Your task to perform on an android device: When is my next appointment? Image 0: 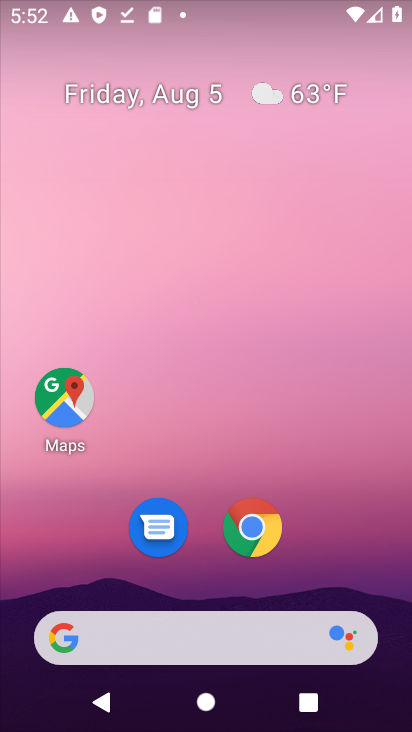
Step 0: drag from (188, 551) to (65, 623)
Your task to perform on an android device: When is my next appointment? Image 1: 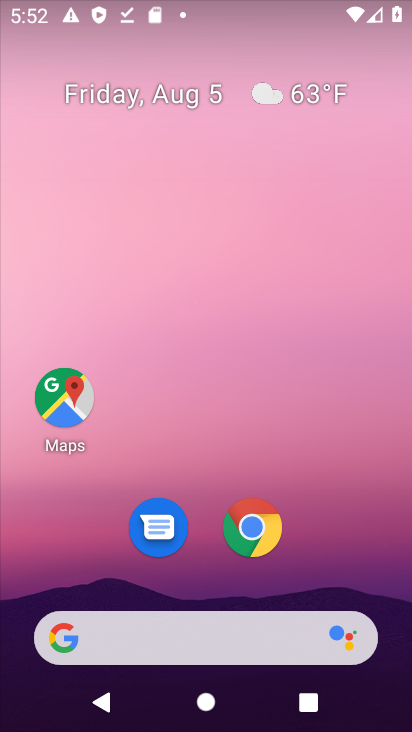
Step 1: drag from (185, 510) to (158, 158)
Your task to perform on an android device: When is my next appointment? Image 2: 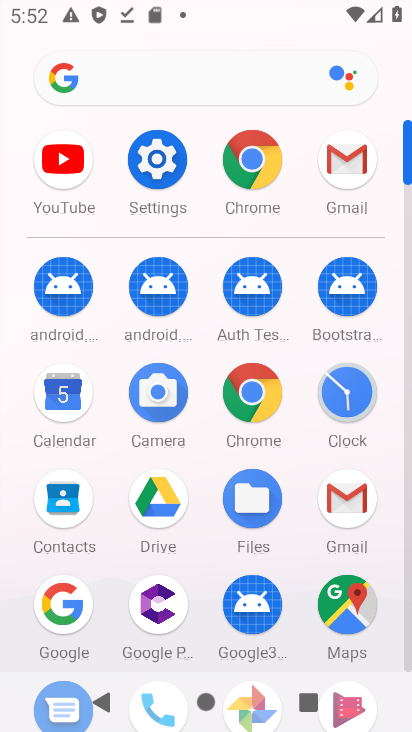
Step 2: click (158, 142)
Your task to perform on an android device: When is my next appointment? Image 3: 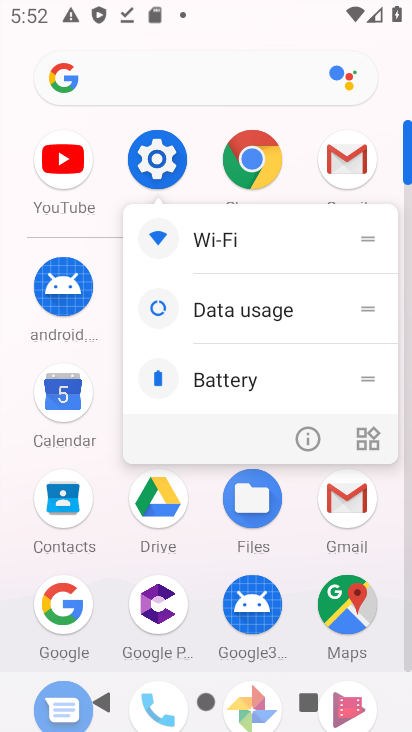
Step 3: click (306, 437)
Your task to perform on an android device: When is my next appointment? Image 4: 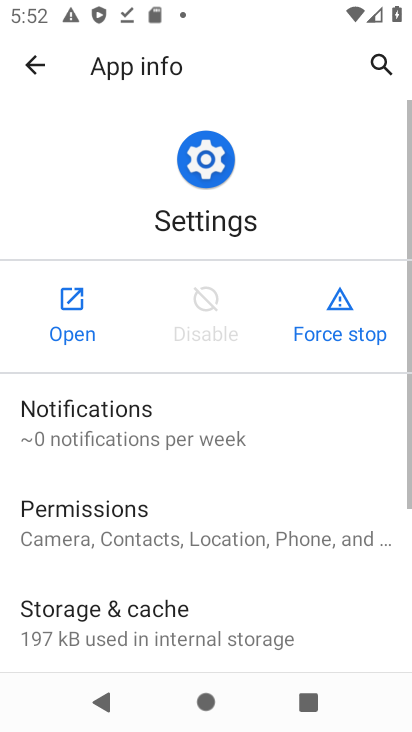
Step 4: click (94, 295)
Your task to perform on an android device: When is my next appointment? Image 5: 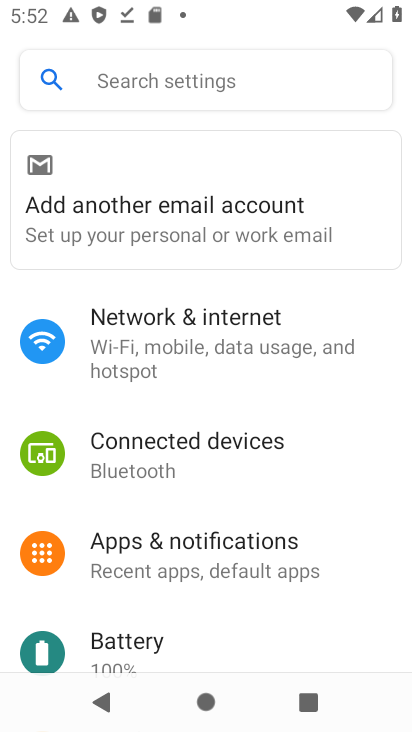
Step 5: drag from (199, 546) to (173, 258)
Your task to perform on an android device: When is my next appointment? Image 6: 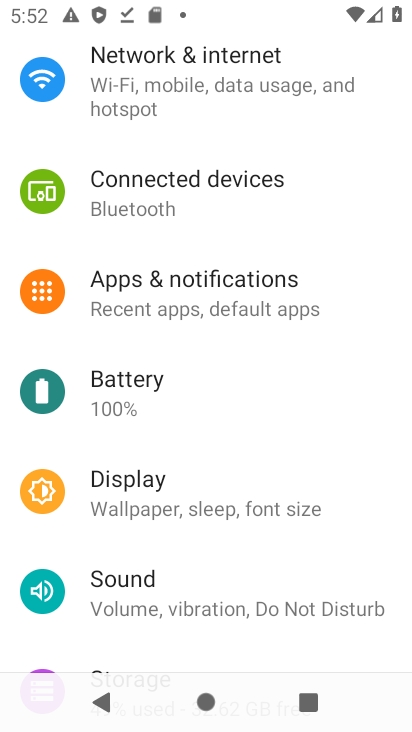
Step 6: drag from (238, 275) to (279, 725)
Your task to perform on an android device: When is my next appointment? Image 7: 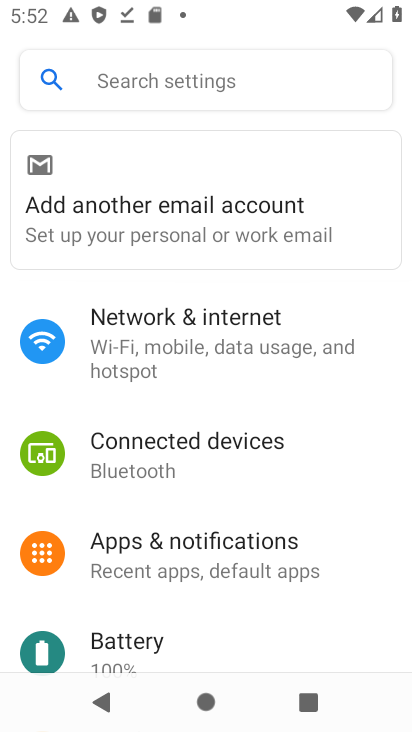
Step 7: press home button
Your task to perform on an android device: When is my next appointment? Image 8: 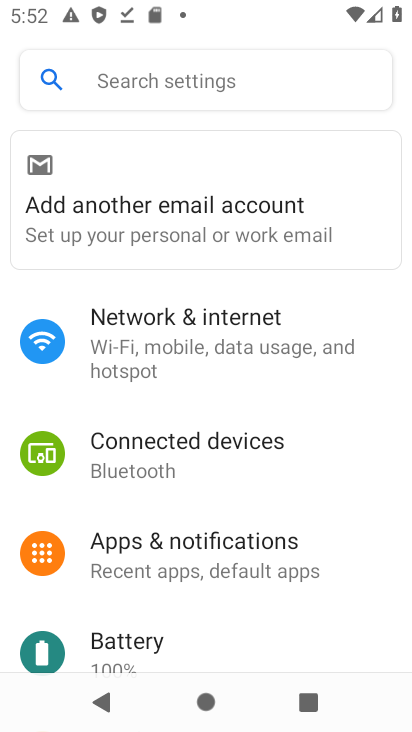
Step 8: press home button
Your task to perform on an android device: When is my next appointment? Image 9: 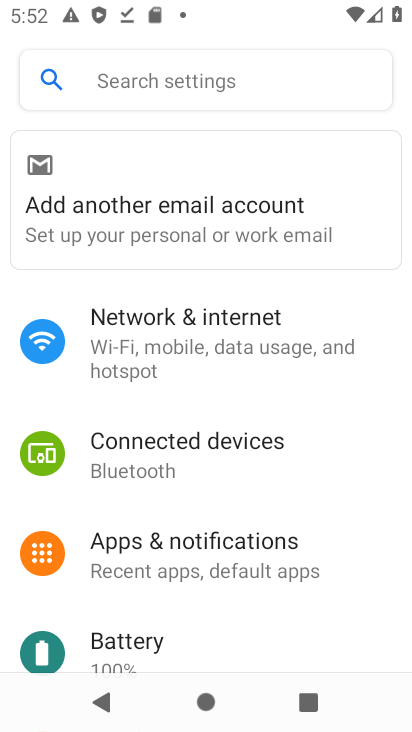
Step 9: drag from (279, 725) to (20, 649)
Your task to perform on an android device: When is my next appointment? Image 10: 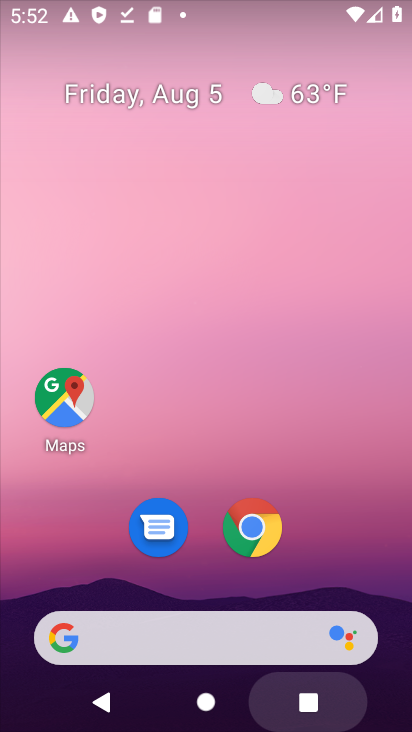
Step 10: drag from (190, 562) to (210, 166)
Your task to perform on an android device: When is my next appointment? Image 11: 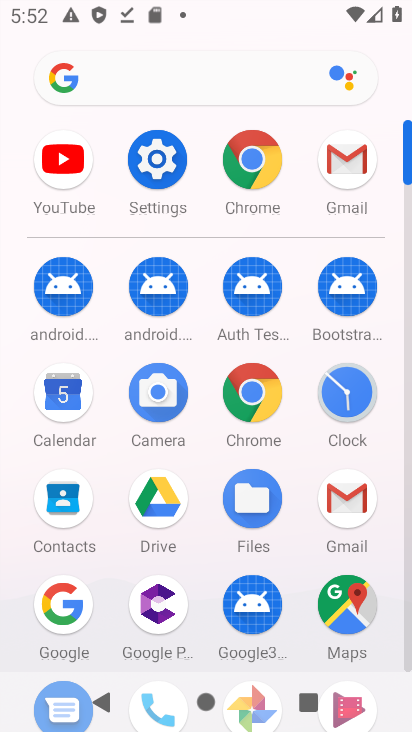
Step 11: drag from (232, 543) to (238, 218)
Your task to perform on an android device: When is my next appointment? Image 12: 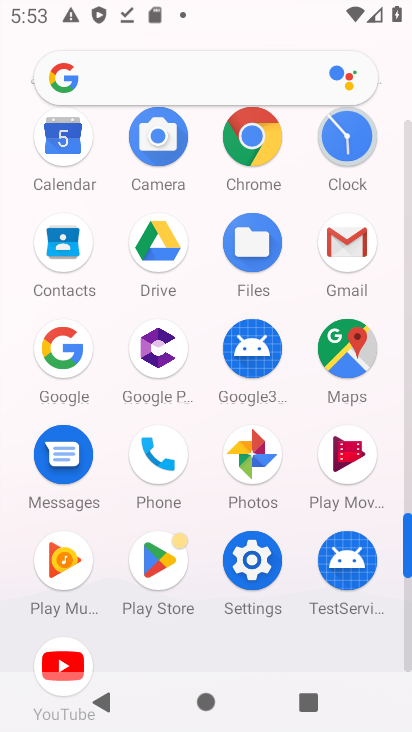
Step 12: drag from (185, 206) to (284, 611)
Your task to perform on an android device: When is my next appointment? Image 13: 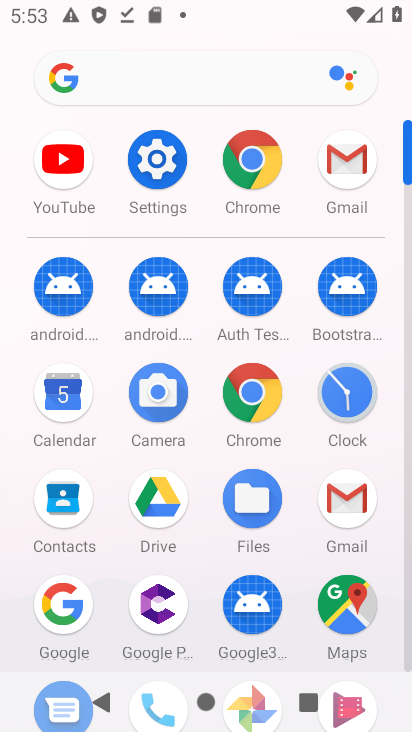
Step 13: click (61, 392)
Your task to perform on an android device: When is my next appointment? Image 14: 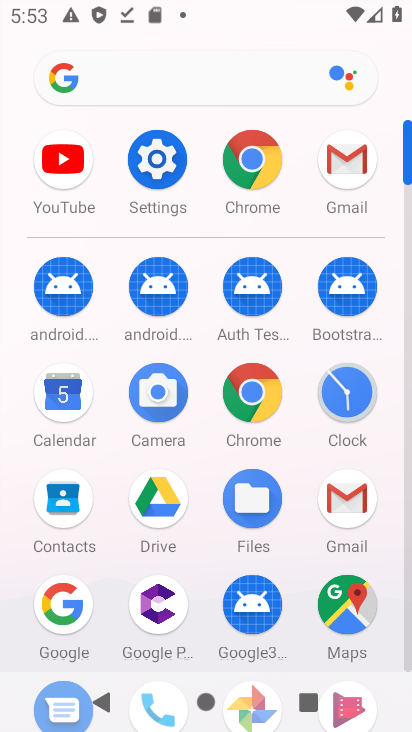
Step 14: click (61, 392)
Your task to perform on an android device: When is my next appointment? Image 15: 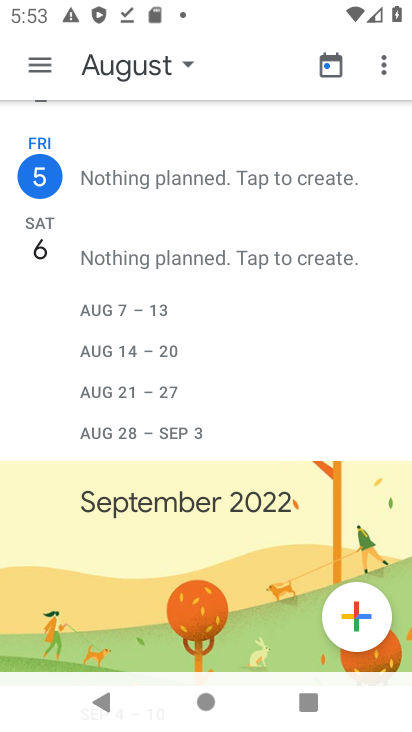
Step 15: drag from (246, 267) to (249, 518)
Your task to perform on an android device: When is my next appointment? Image 16: 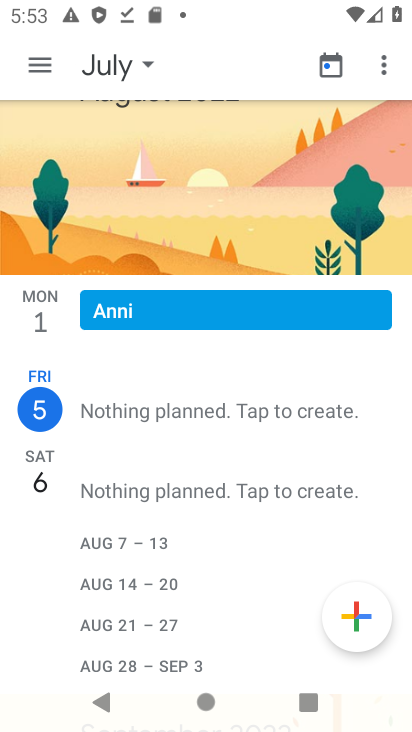
Step 16: click (133, 60)
Your task to perform on an android device: When is my next appointment? Image 17: 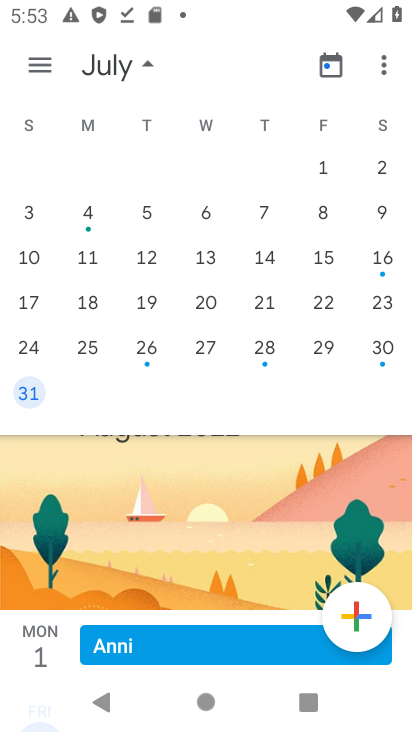
Step 17: click (338, 53)
Your task to perform on an android device: When is my next appointment? Image 18: 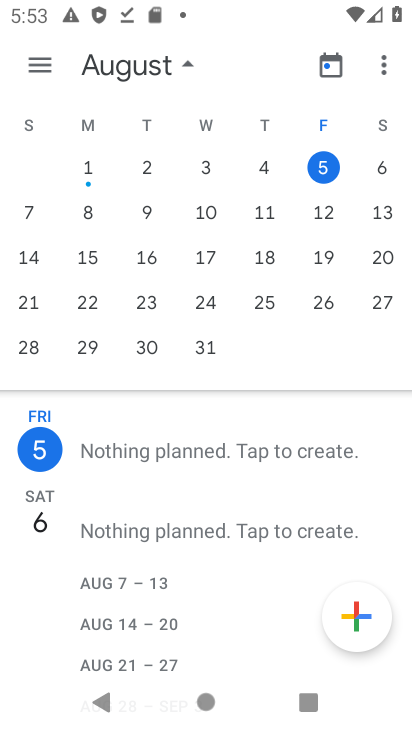
Step 18: task complete